Your task to perform on an android device: all mails in gmail Image 0: 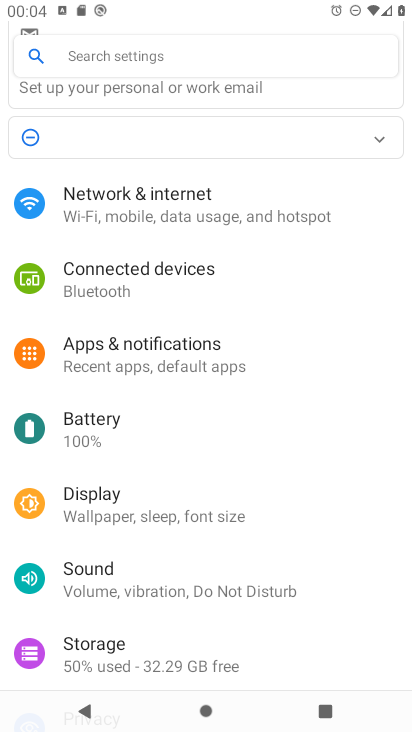
Step 0: press home button
Your task to perform on an android device: all mails in gmail Image 1: 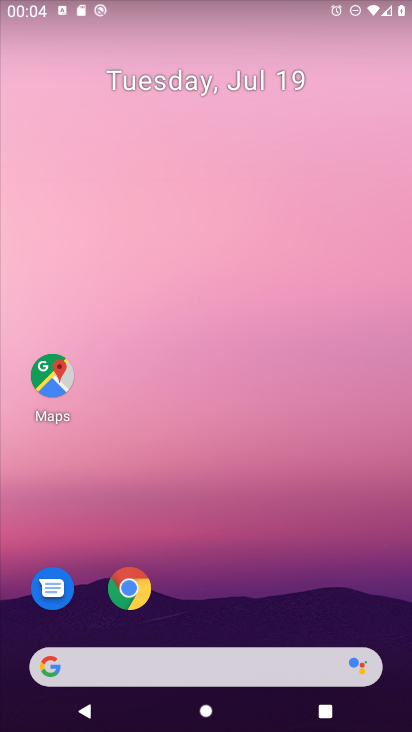
Step 1: drag from (374, 608) to (323, 46)
Your task to perform on an android device: all mails in gmail Image 2: 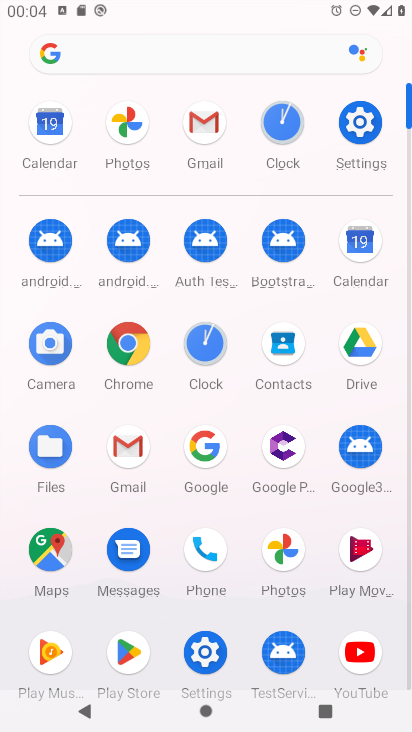
Step 2: click (128, 449)
Your task to perform on an android device: all mails in gmail Image 3: 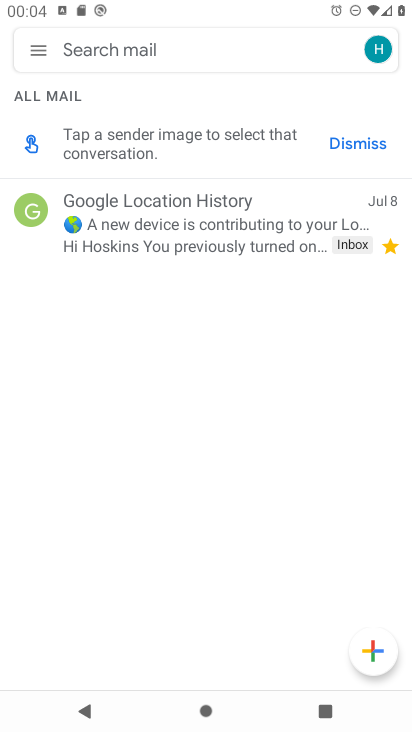
Step 3: click (42, 48)
Your task to perform on an android device: all mails in gmail Image 4: 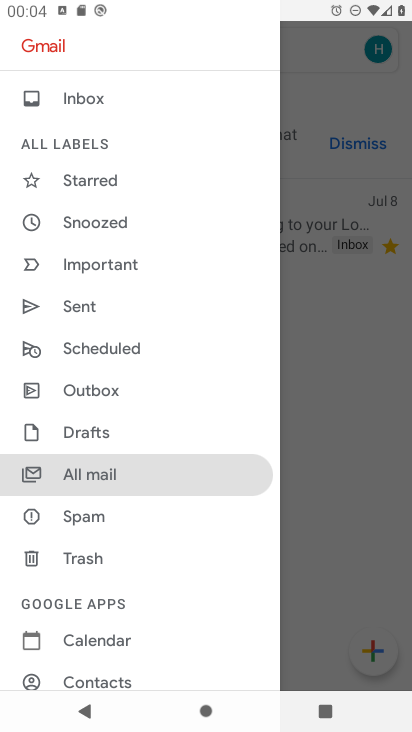
Step 4: click (118, 467)
Your task to perform on an android device: all mails in gmail Image 5: 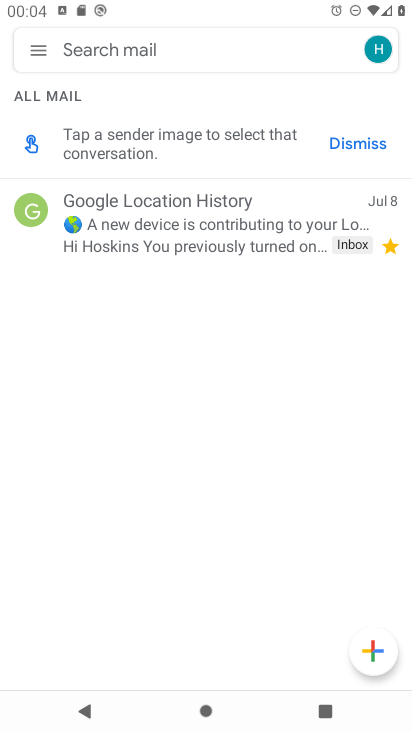
Step 5: task complete